Your task to perform on an android device: change notifications settings Image 0: 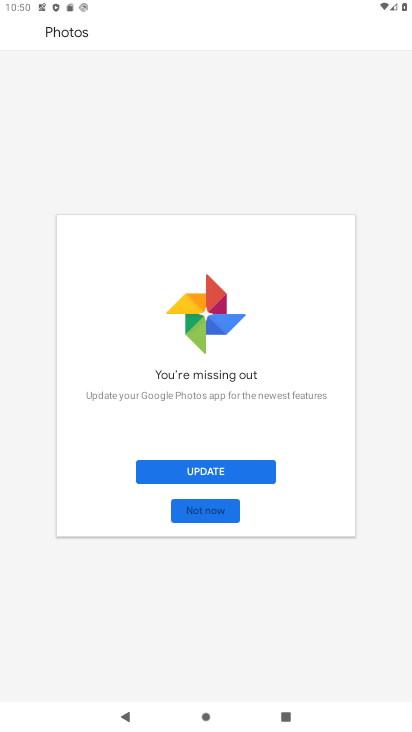
Step 0: press home button
Your task to perform on an android device: change notifications settings Image 1: 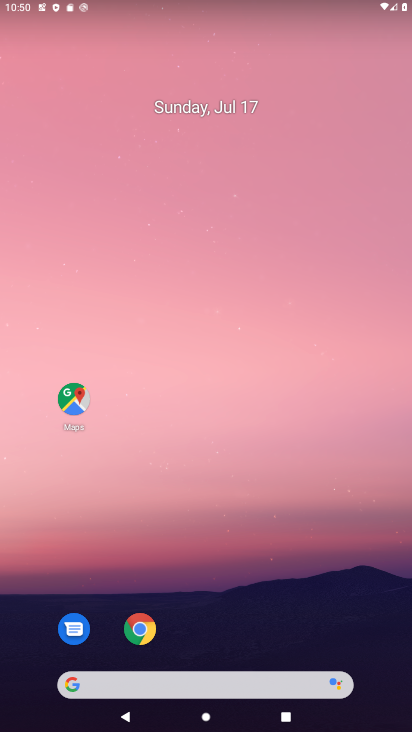
Step 1: drag from (298, 630) to (298, 229)
Your task to perform on an android device: change notifications settings Image 2: 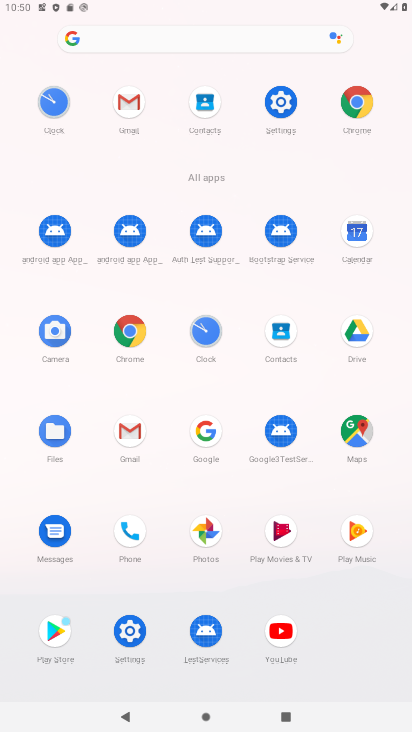
Step 2: click (137, 634)
Your task to perform on an android device: change notifications settings Image 3: 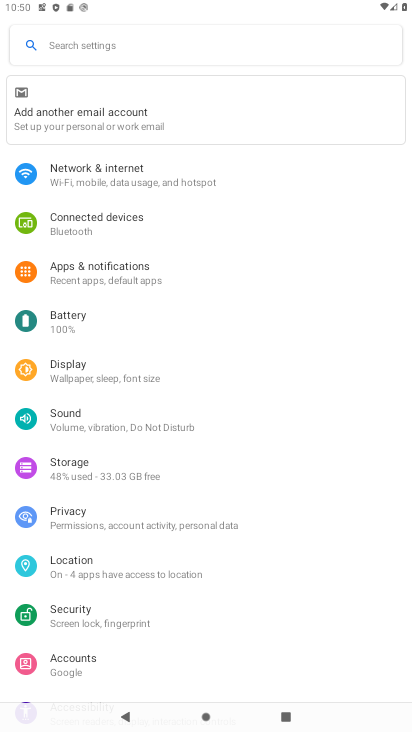
Step 3: click (118, 276)
Your task to perform on an android device: change notifications settings Image 4: 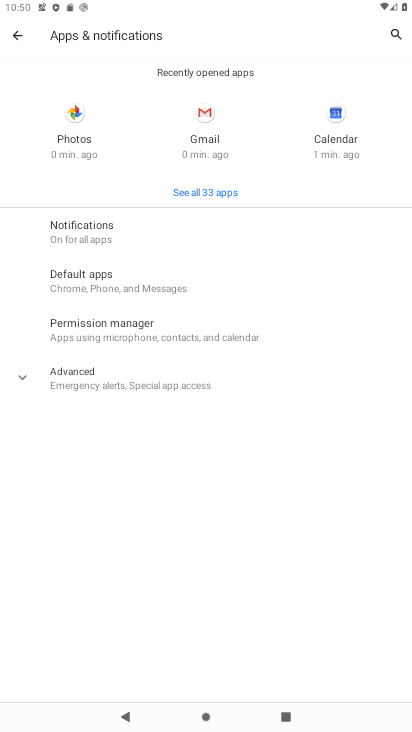
Step 4: click (134, 230)
Your task to perform on an android device: change notifications settings Image 5: 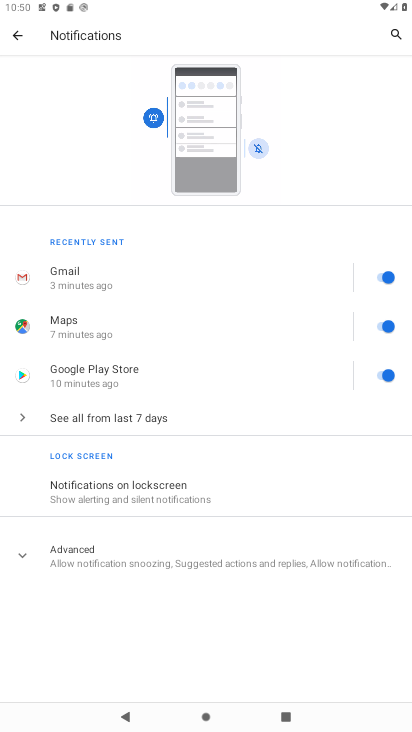
Step 5: task complete